Your task to perform on an android device: Open Google Chrome and click the shortcut for Amazon.com Image 0: 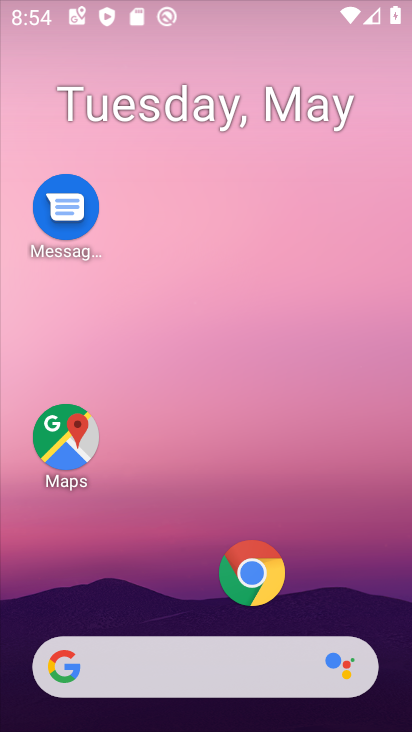
Step 0: drag from (301, 631) to (159, 152)
Your task to perform on an android device: Open Google Chrome and click the shortcut for Amazon.com Image 1: 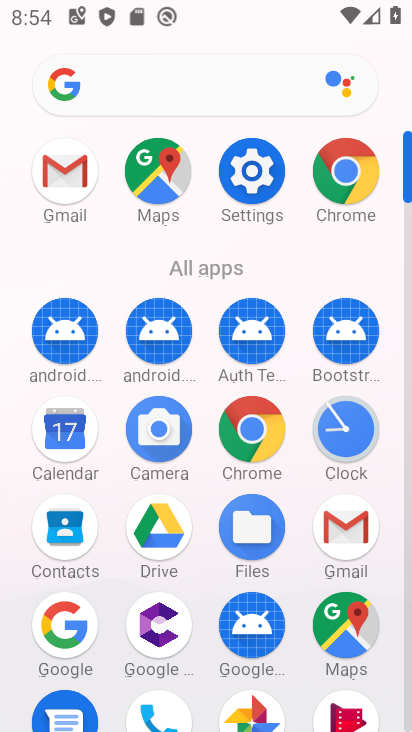
Step 1: click (331, 164)
Your task to perform on an android device: Open Google Chrome and click the shortcut for Amazon.com Image 2: 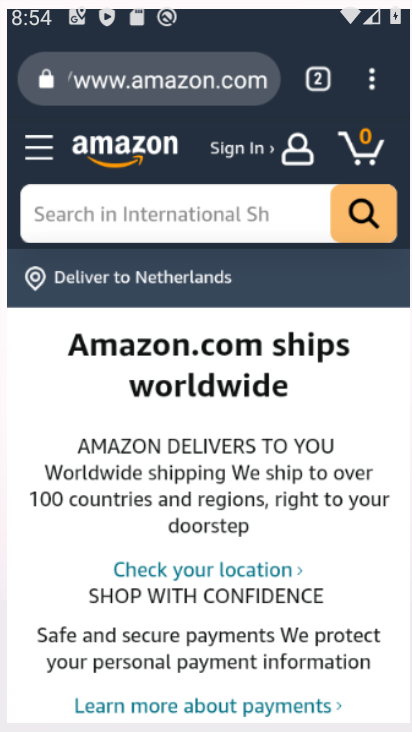
Step 2: click (331, 164)
Your task to perform on an android device: Open Google Chrome and click the shortcut for Amazon.com Image 3: 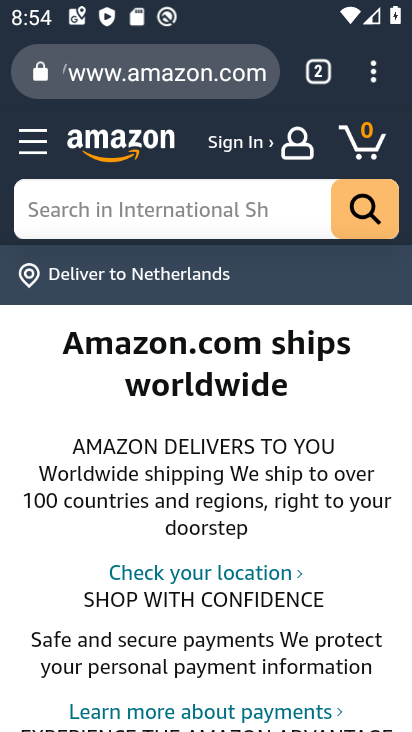
Step 3: click (376, 71)
Your task to perform on an android device: Open Google Chrome and click the shortcut for Amazon.com Image 4: 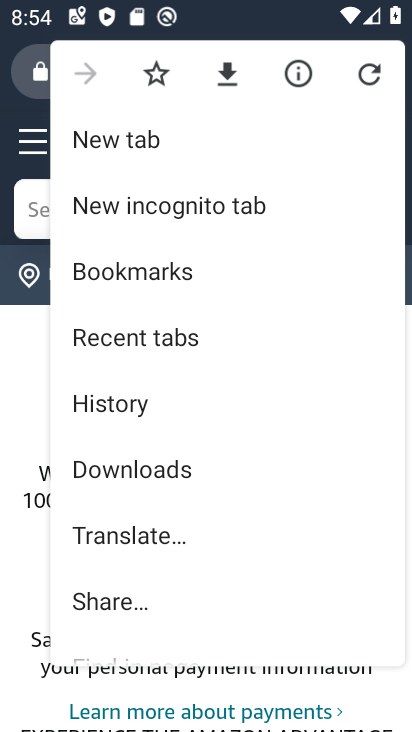
Step 4: click (98, 134)
Your task to perform on an android device: Open Google Chrome and click the shortcut for Amazon.com Image 5: 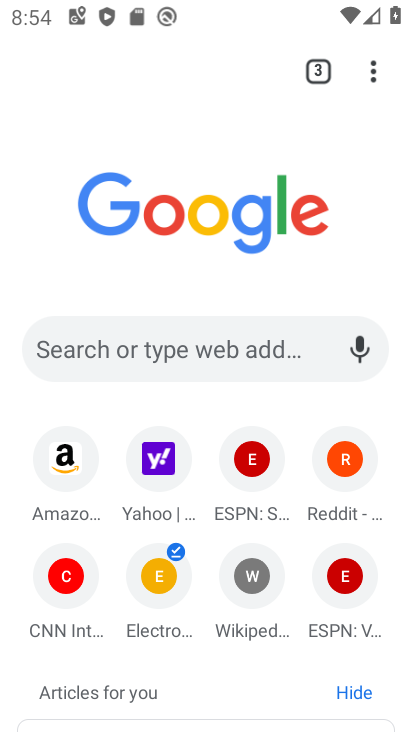
Step 5: click (58, 475)
Your task to perform on an android device: Open Google Chrome and click the shortcut for Amazon.com Image 6: 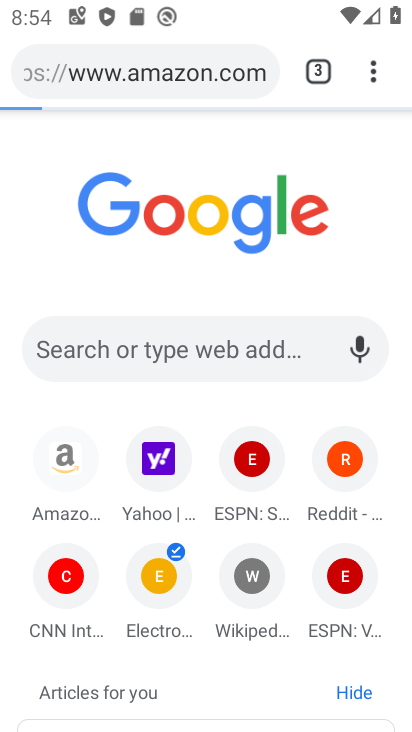
Step 6: click (58, 475)
Your task to perform on an android device: Open Google Chrome and click the shortcut for Amazon.com Image 7: 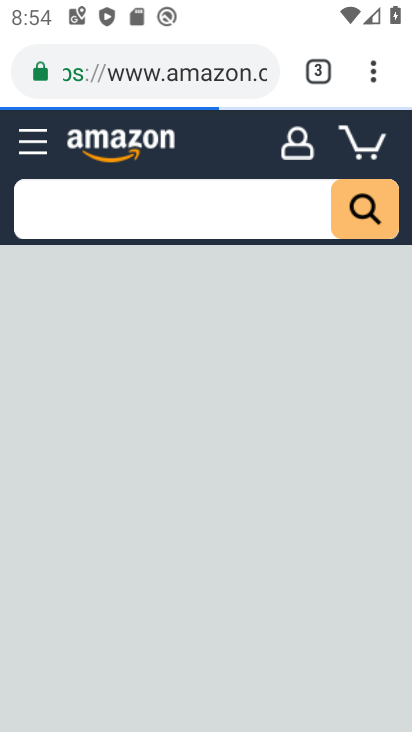
Step 7: click (58, 473)
Your task to perform on an android device: Open Google Chrome and click the shortcut for Amazon.com Image 8: 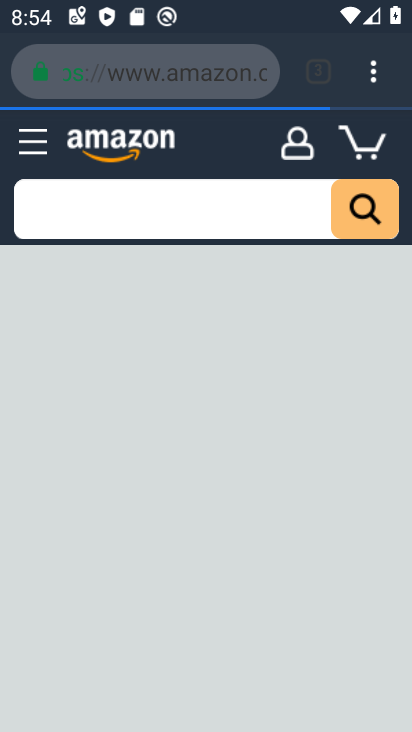
Step 8: click (58, 466)
Your task to perform on an android device: Open Google Chrome and click the shortcut for Amazon.com Image 9: 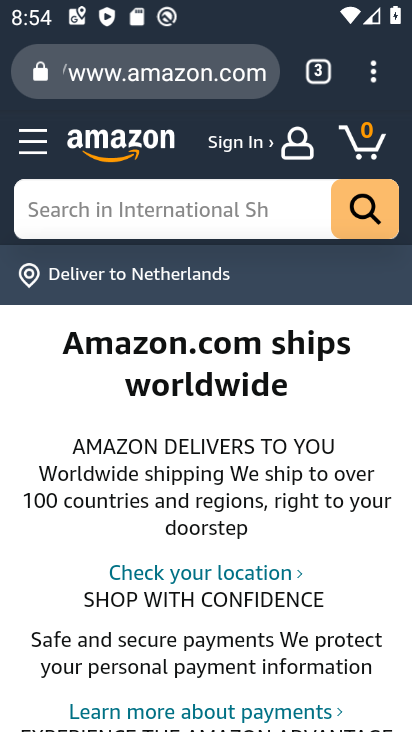
Step 9: task complete